Your task to perform on an android device: Open Google Chrome Image 0: 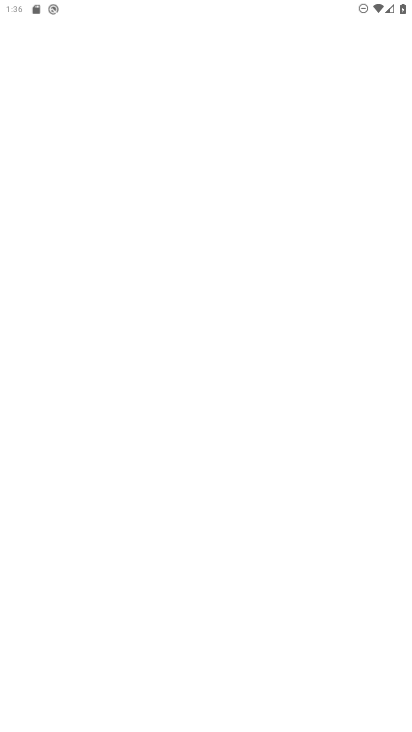
Step 0: press home button
Your task to perform on an android device: Open Google Chrome Image 1: 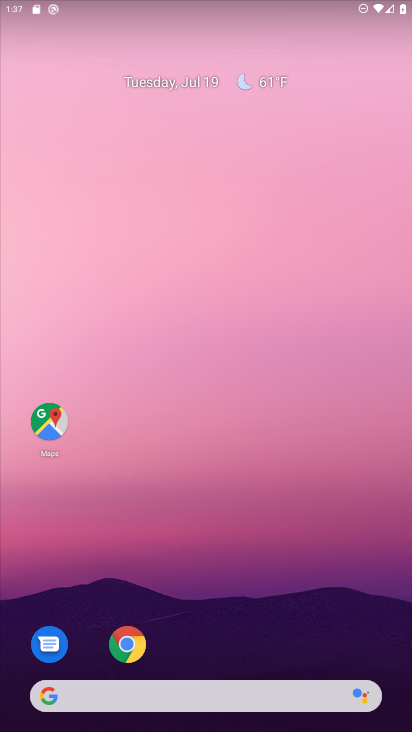
Step 1: click (120, 635)
Your task to perform on an android device: Open Google Chrome Image 2: 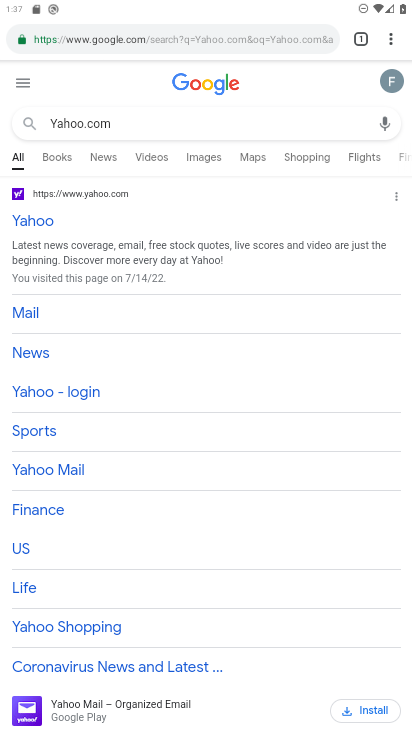
Step 2: task complete